Your task to perform on an android device: Open the calendar and show me this week's events? Image 0: 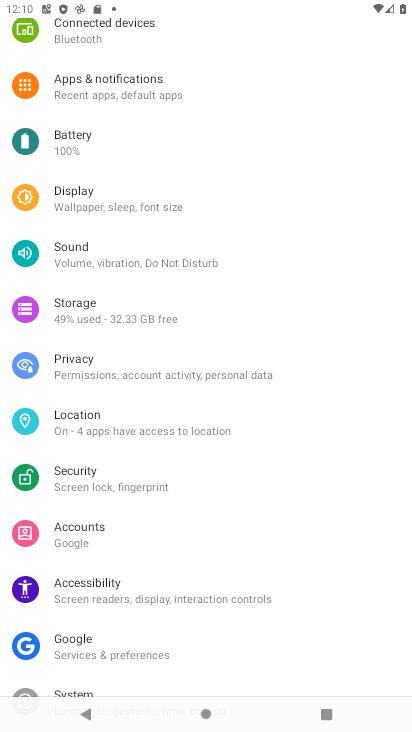
Step 0: press home button
Your task to perform on an android device: Open the calendar and show me this week's events? Image 1: 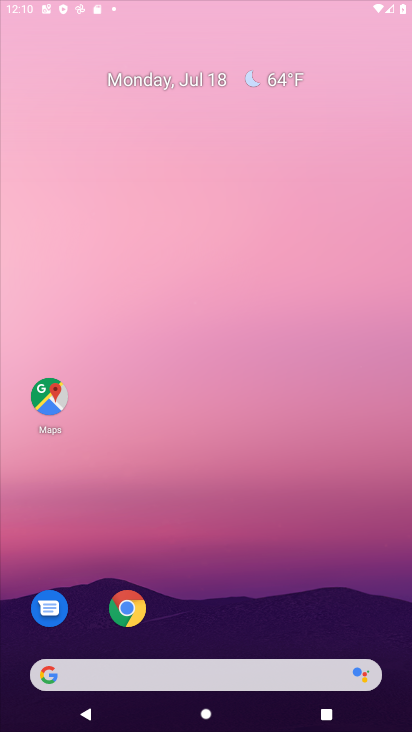
Step 1: drag from (401, 663) to (244, 72)
Your task to perform on an android device: Open the calendar and show me this week's events? Image 2: 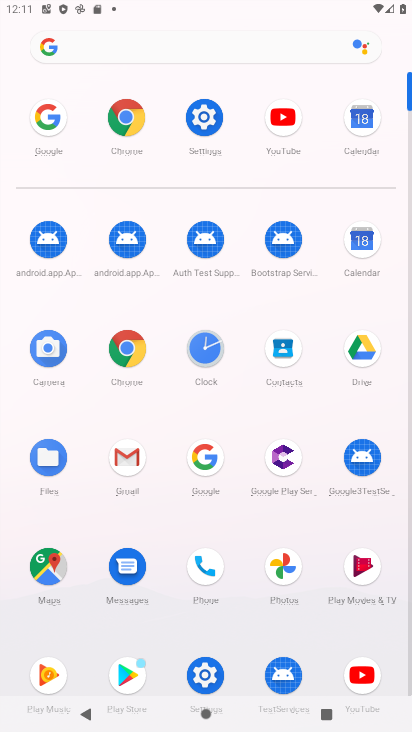
Step 2: click (359, 256)
Your task to perform on an android device: Open the calendar and show me this week's events? Image 3: 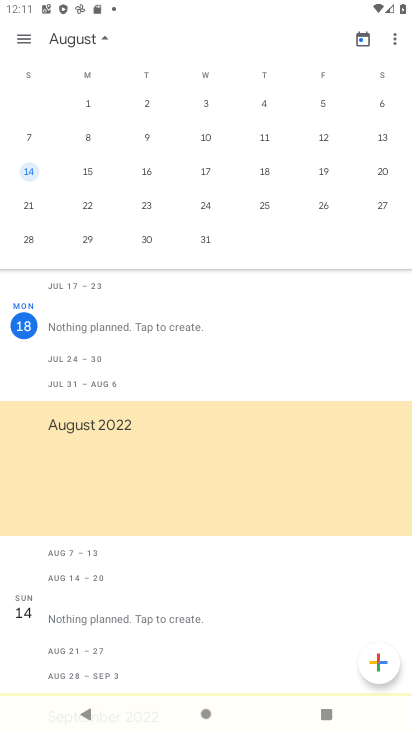
Step 3: task complete